Your task to perform on an android device: turn on translation in the chrome app Image 0: 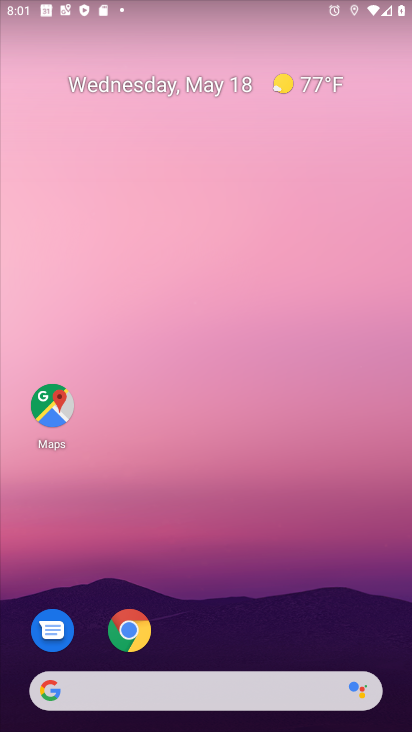
Step 0: click (130, 635)
Your task to perform on an android device: turn on translation in the chrome app Image 1: 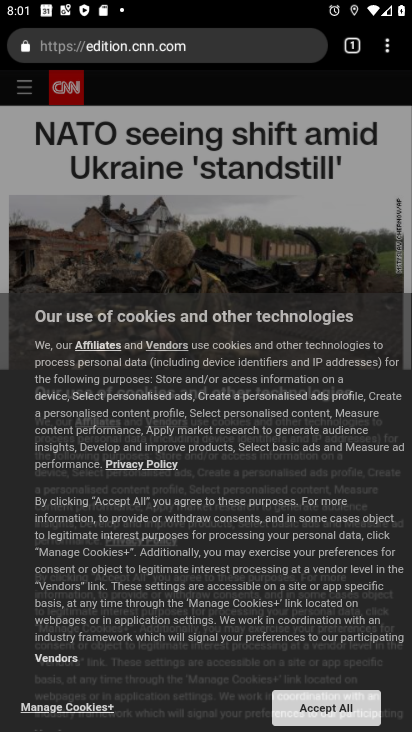
Step 1: drag from (387, 55) to (216, 504)
Your task to perform on an android device: turn on translation in the chrome app Image 2: 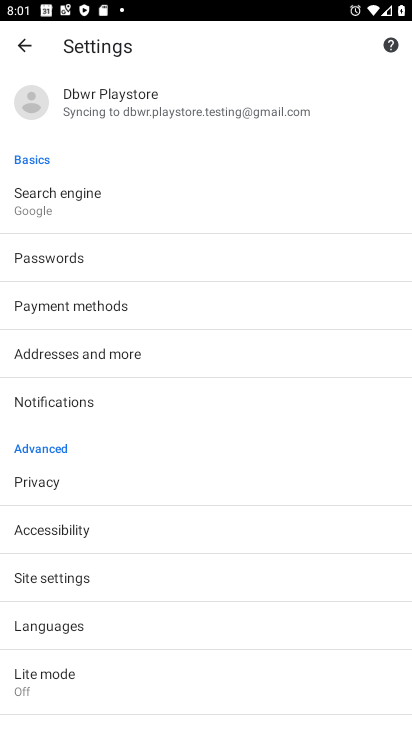
Step 2: drag from (137, 675) to (169, 404)
Your task to perform on an android device: turn on translation in the chrome app Image 3: 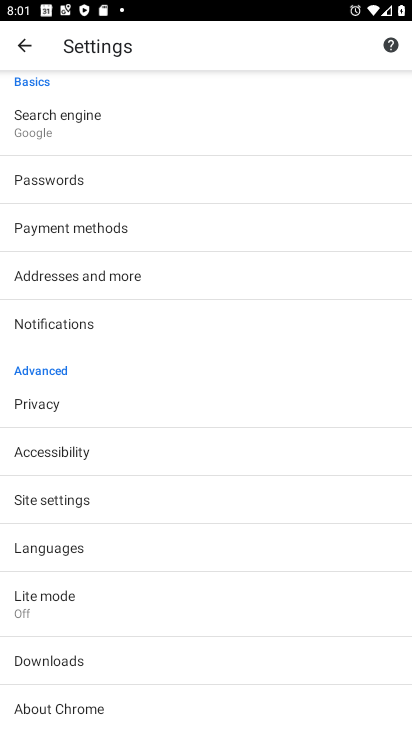
Step 3: click (94, 551)
Your task to perform on an android device: turn on translation in the chrome app Image 4: 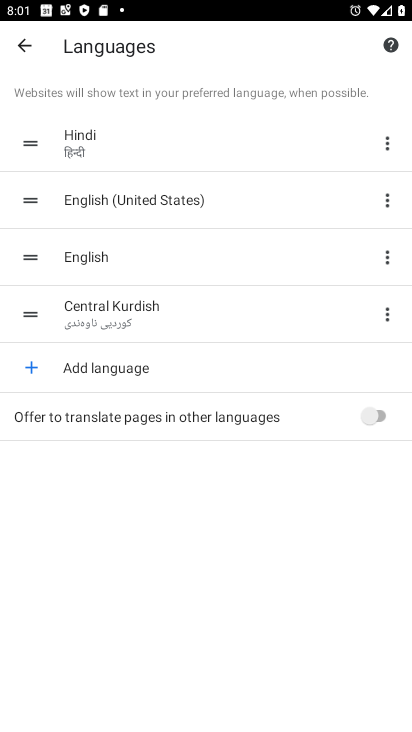
Step 4: click (369, 415)
Your task to perform on an android device: turn on translation in the chrome app Image 5: 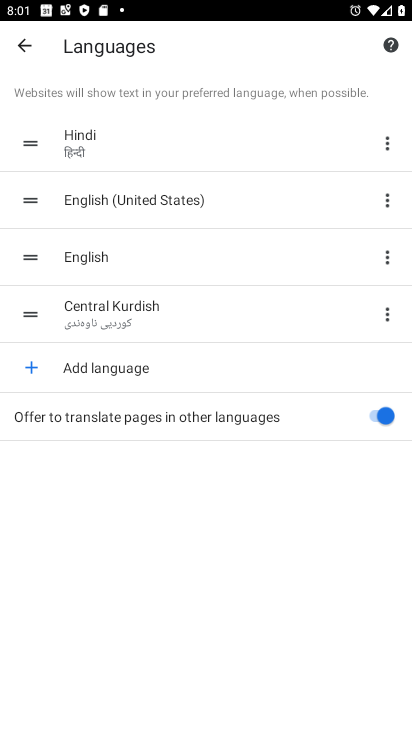
Step 5: task complete